Your task to perform on an android device: open wifi settings Image 0: 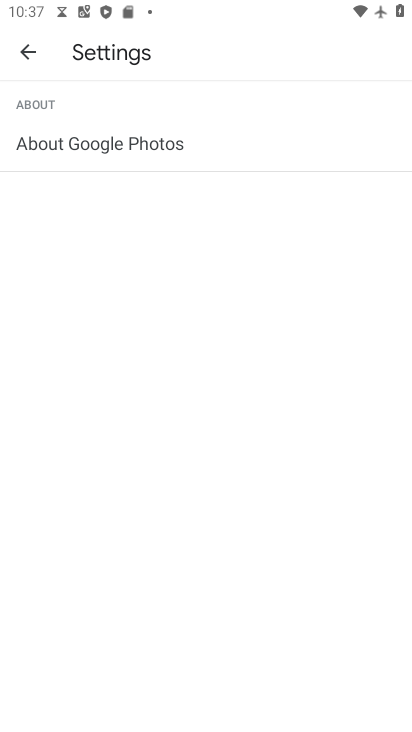
Step 0: press back button
Your task to perform on an android device: open wifi settings Image 1: 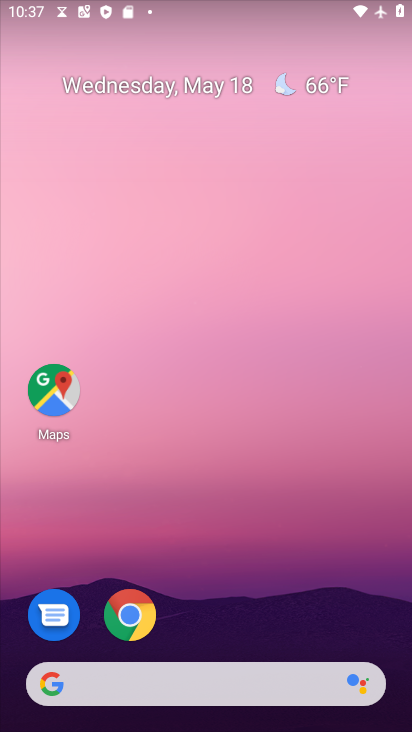
Step 1: drag from (246, 567) to (234, 20)
Your task to perform on an android device: open wifi settings Image 2: 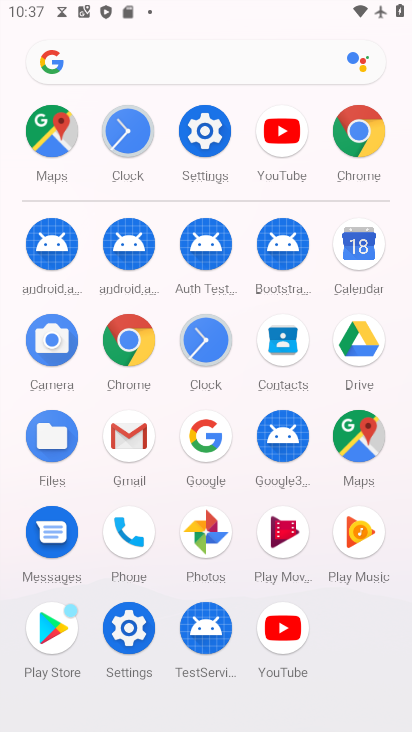
Step 2: click (202, 128)
Your task to perform on an android device: open wifi settings Image 3: 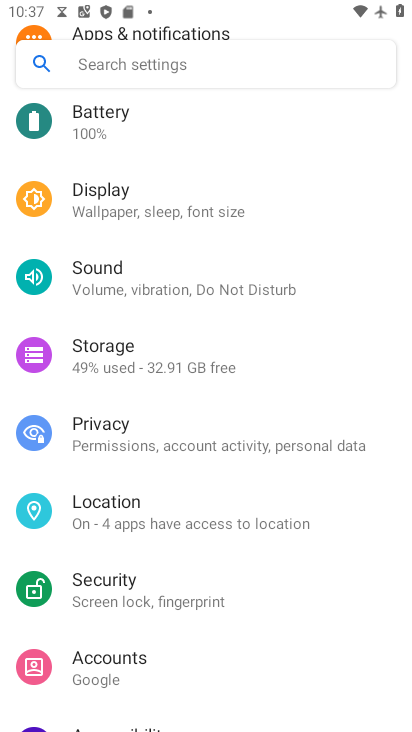
Step 3: drag from (246, 123) to (247, 467)
Your task to perform on an android device: open wifi settings Image 4: 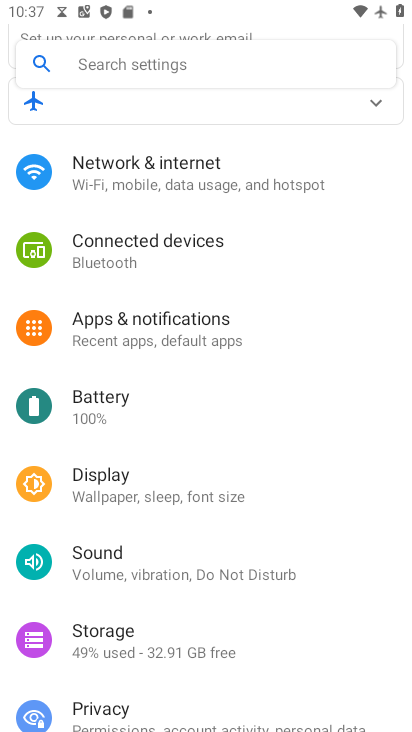
Step 4: drag from (236, 148) to (226, 522)
Your task to perform on an android device: open wifi settings Image 5: 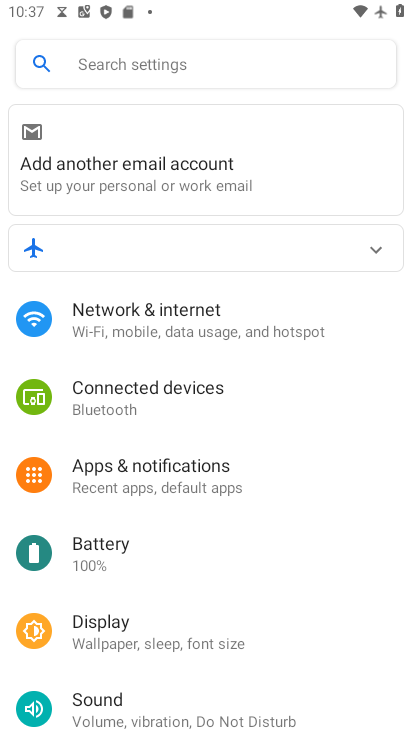
Step 5: click (188, 326)
Your task to perform on an android device: open wifi settings Image 6: 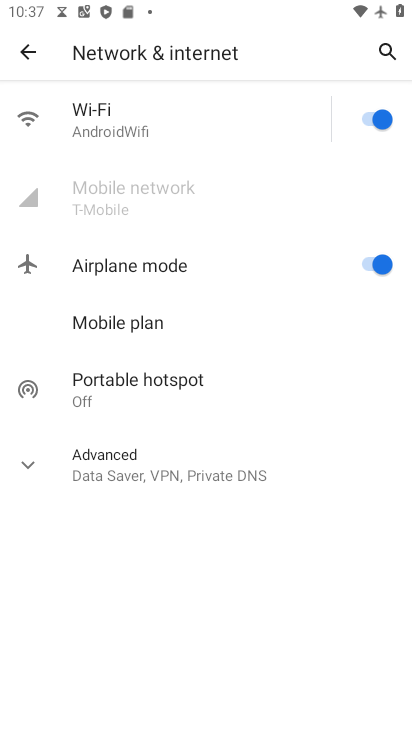
Step 6: click (118, 120)
Your task to perform on an android device: open wifi settings Image 7: 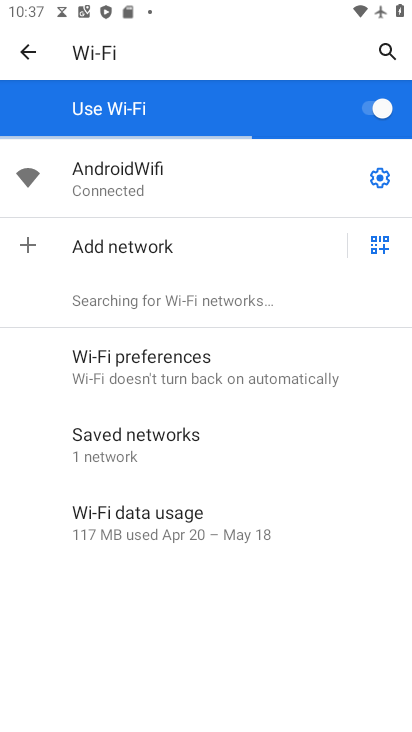
Step 7: task complete